Your task to perform on an android device: find which apps use the phone's location Image 0: 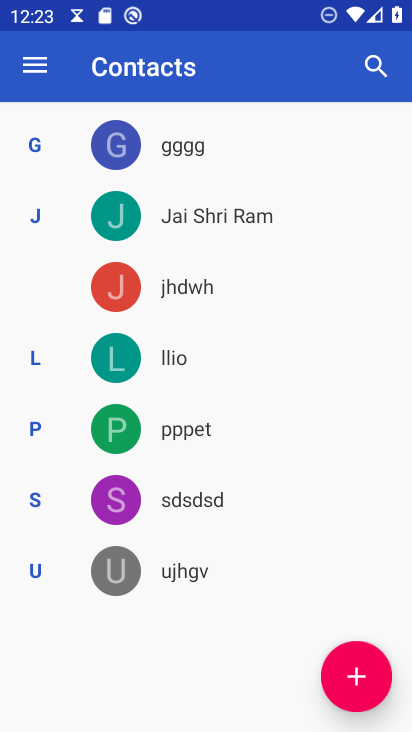
Step 0: press home button
Your task to perform on an android device: find which apps use the phone's location Image 1: 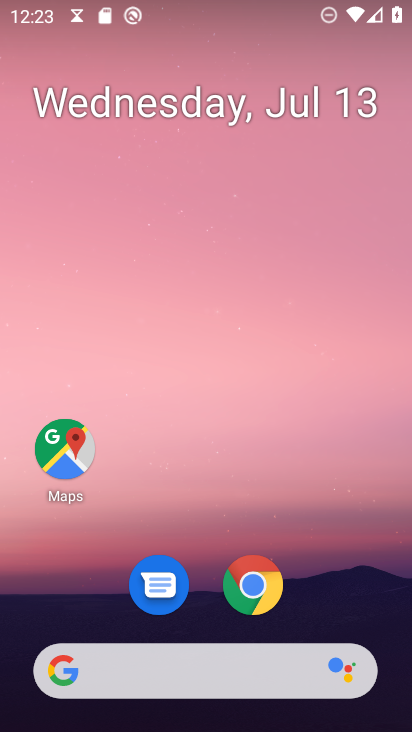
Step 1: drag from (220, 643) to (288, 164)
Your task to perform on an android device: find which apps use the phone's location Image 2: 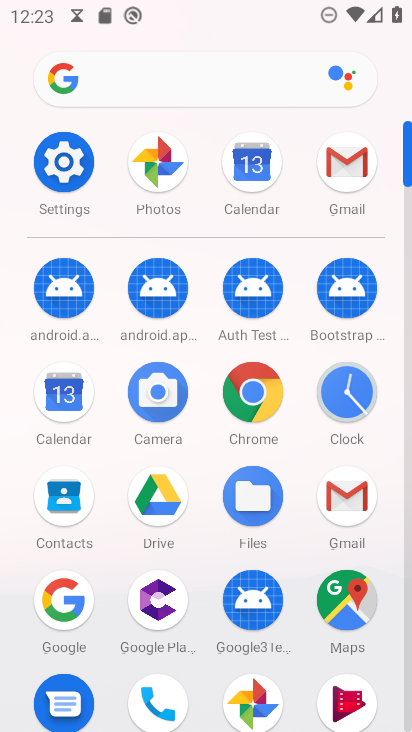
Step 2: click (72, 154)
Your task to perform on an android device: find which apps use the phone's location Image 3: 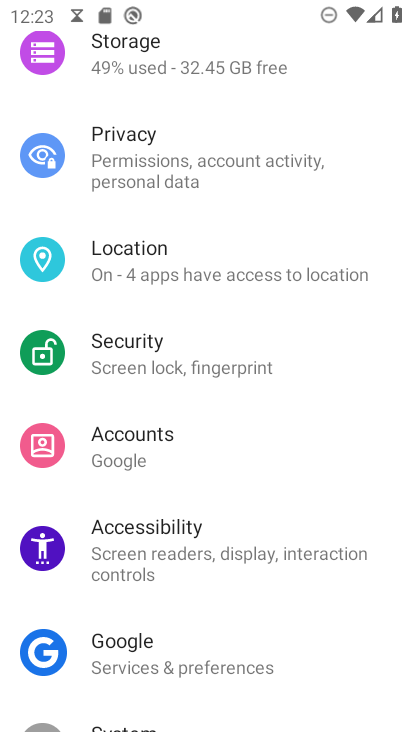
Step 3: click (161, 262)
Your task to perform on an android device: find which apps use the phone's location Image 4: 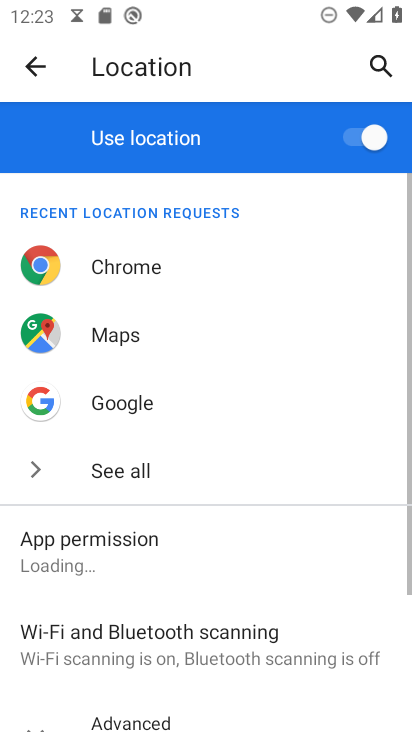
Step 4: drag from (193, 614) to (294, 108)
Your task to perform on an android device: find which apps use the phone's location Image 5: 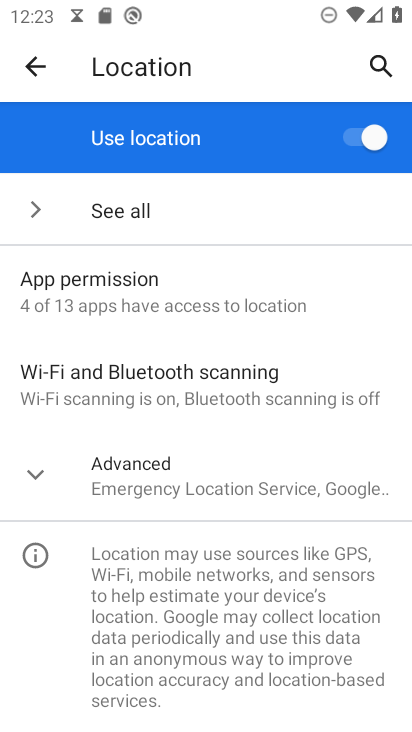
Step 5: click (92, 294)
Your task to perform on an android device: find which apps use the phone's location Image 6: 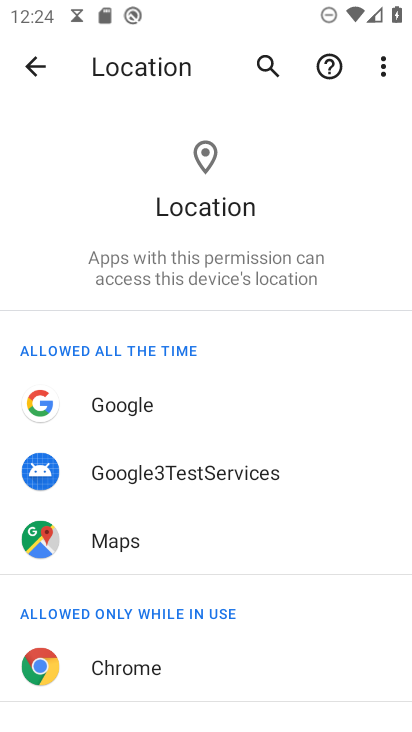
Step 6: drag from (192, 619) to (290, 76)
Your task to perform on an android device: find which apps use the phone's location Image 7: 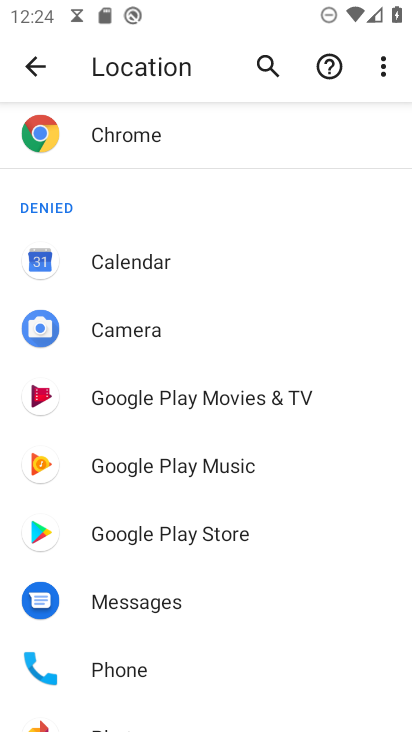
Step 7: click (138, 669)
Your task to perform on an android device: find which apps use the phone's location Image 8: 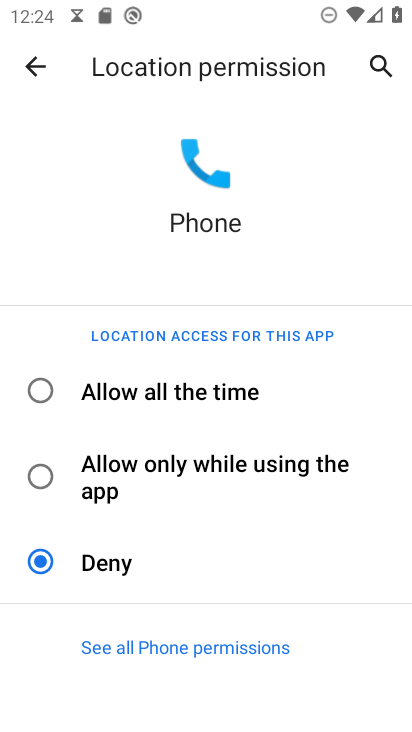
Step 8: task complete